Your task to perform on an android device: Show me the alarms in the clock app Image 0: 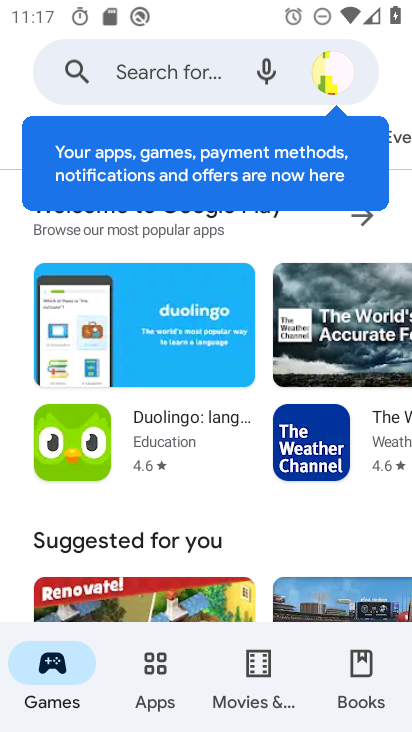
Step 0: press home button
Your task to perform on an android device: Show me the alarms in the clock app Image 1: 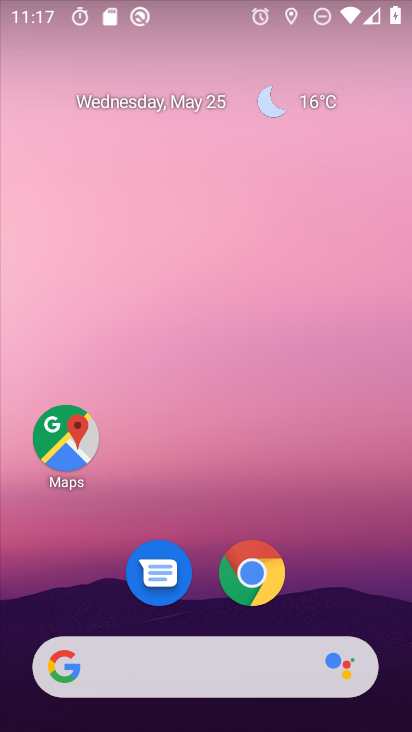
Step 1: drag from (369, 624) to (362, 3)
Your task to perform on an android device: Show me the alarms in the clock app Image 2: 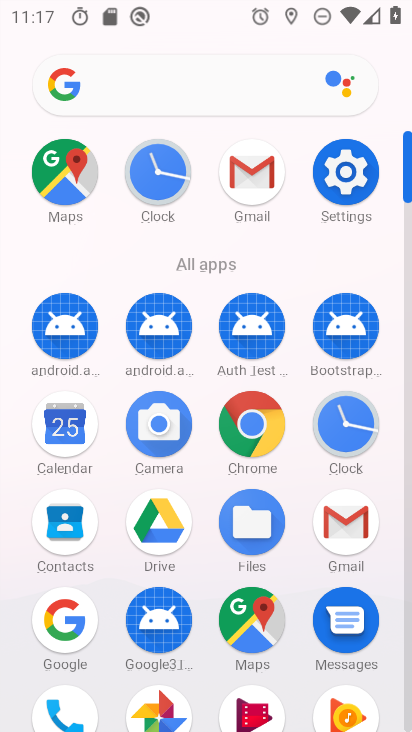
Step 2: click (156, 180)
Your task to perform on an android device: Show me the alarms in the clock app Image 3: 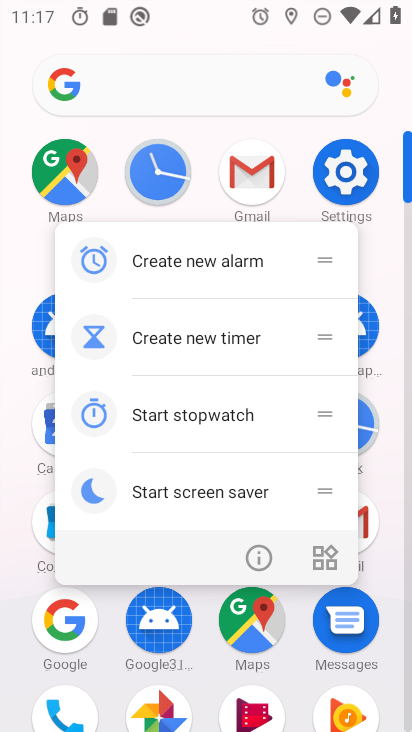
Step 3: click (156, 180)
Your task to perform on an android device: Show me the alarms in the clock app Image 4: 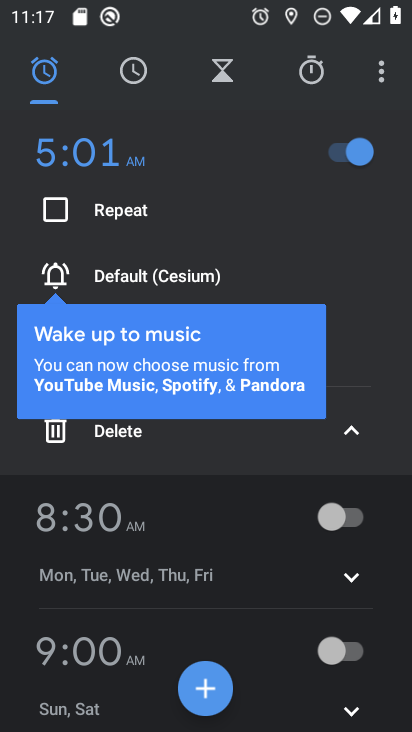
Step 4: task complete